Your task to perform on an android device: turn off wifi Image 0: 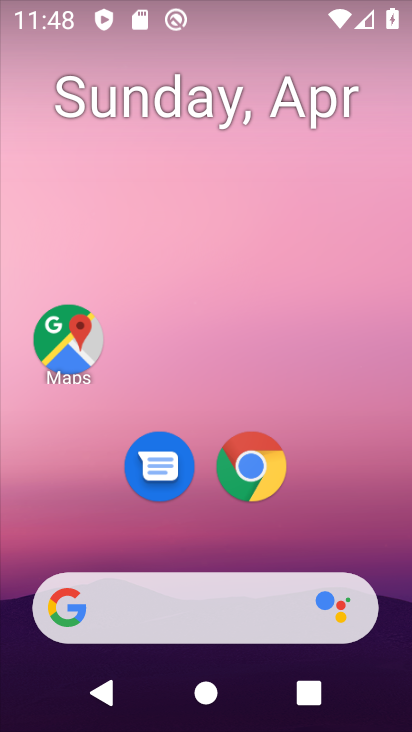
Step 0: press home button
Your task to perform on an android device: turn off wifi Image 1: 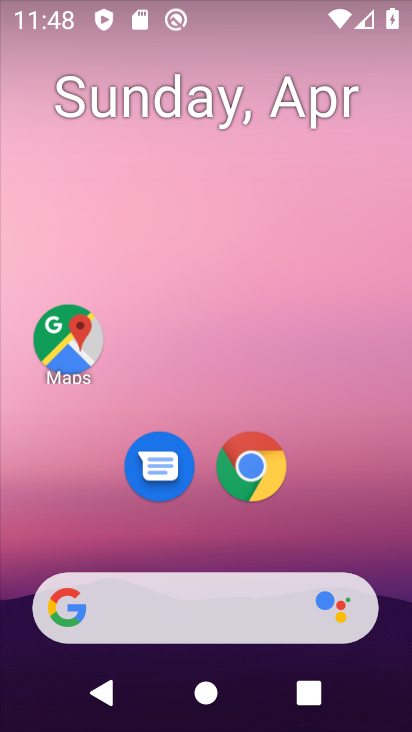
Step 1: drag from (330, 558) to (373, 117)
Your task to perform on an android device: turn off wifi Image 2: 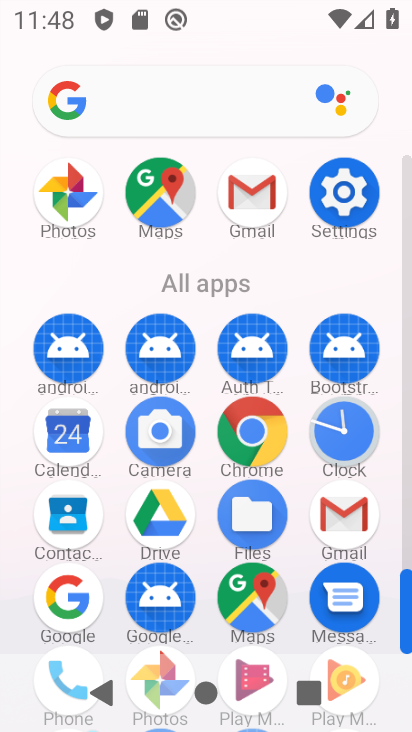
Step 2: click (364, 183)
Your task to perform on an android device: turn off wifi Image 3: 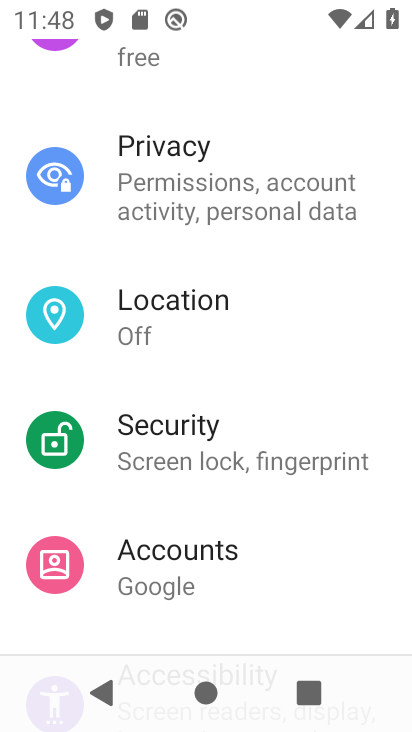
Step 3: drag from (270, 137) to (306, 662)
Your task to perform on an android device: turn off wifi Image 4: 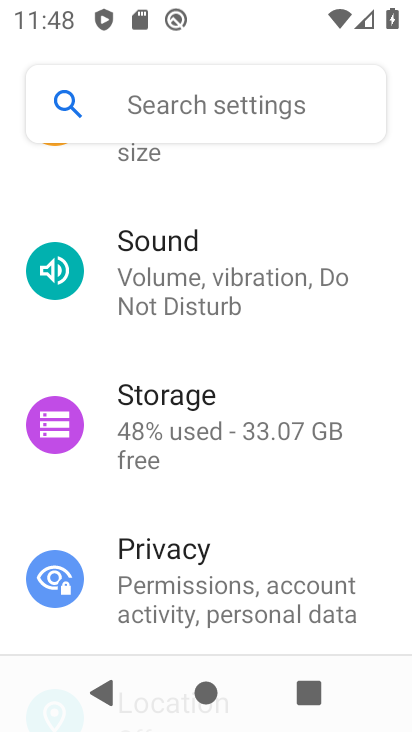
Step 4: drag from (322, 269) to (340, 660)
Your task to perform on an android device: turn off wifi Image 5: 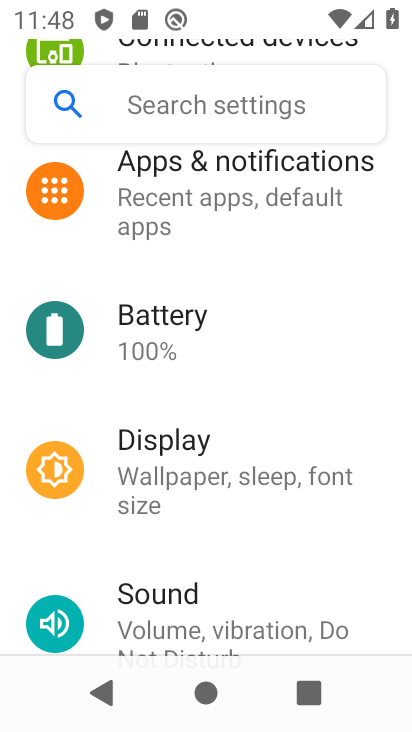
Step 5: drag from (310, 270) to (333, 650)
Your task to perform on an android device: turn off wifi Image 6: 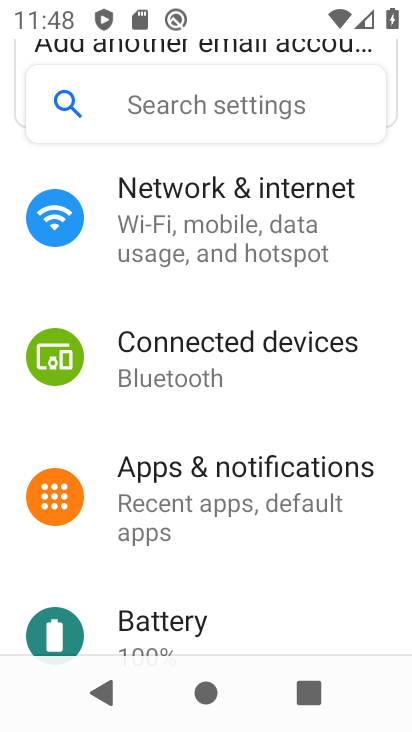
Step 6: click (293, 264)
Your task to perform on an android device: turn off wifi Image 7: 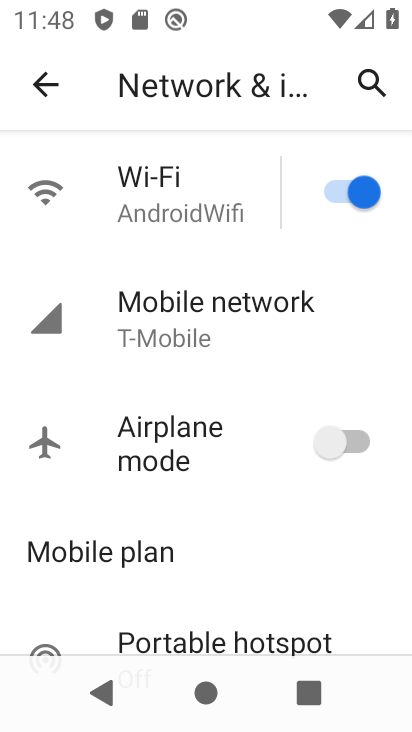
Step 7: click (361, 202)
Your task to perform on an android device: turn off wifi Image 8: 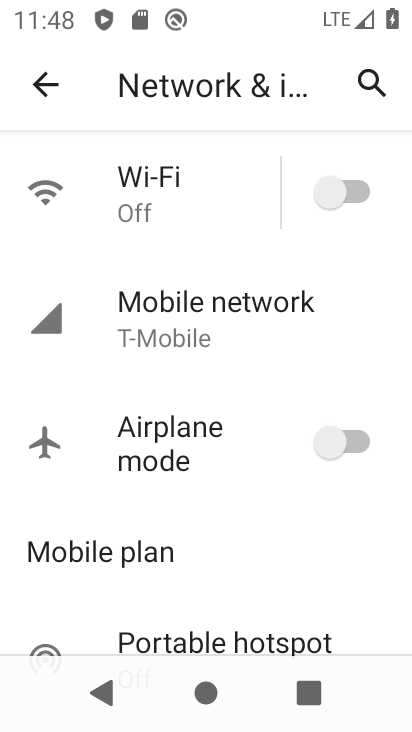
Step 8: task complete